Your task to perform on an android device: Is it going to rain today? Image 0: 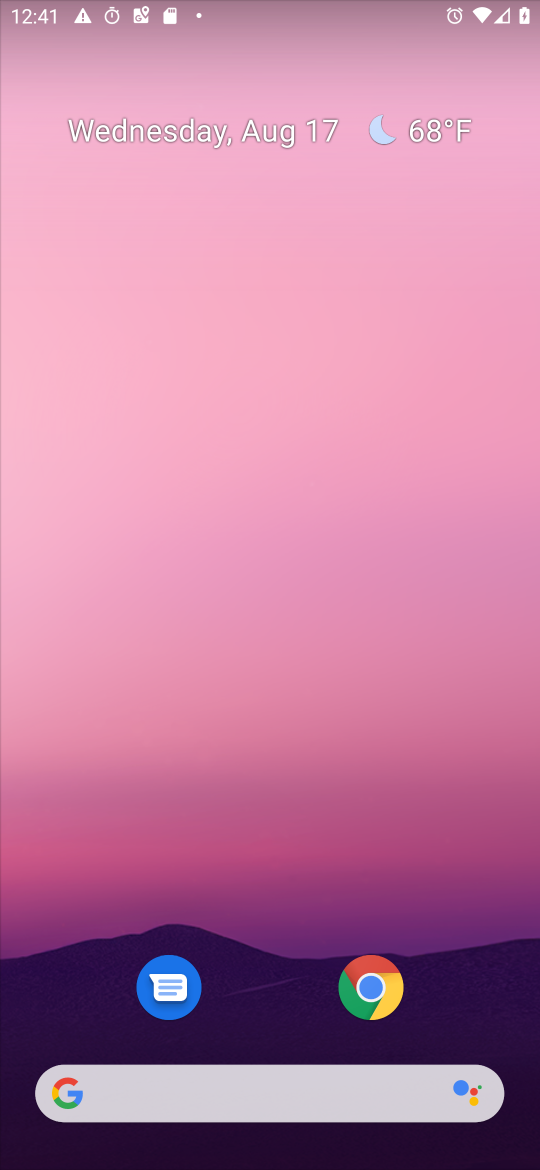
Step 0: click (161, 1094)
Your task to perform on an android device: Is it going to rain today? Image 1: 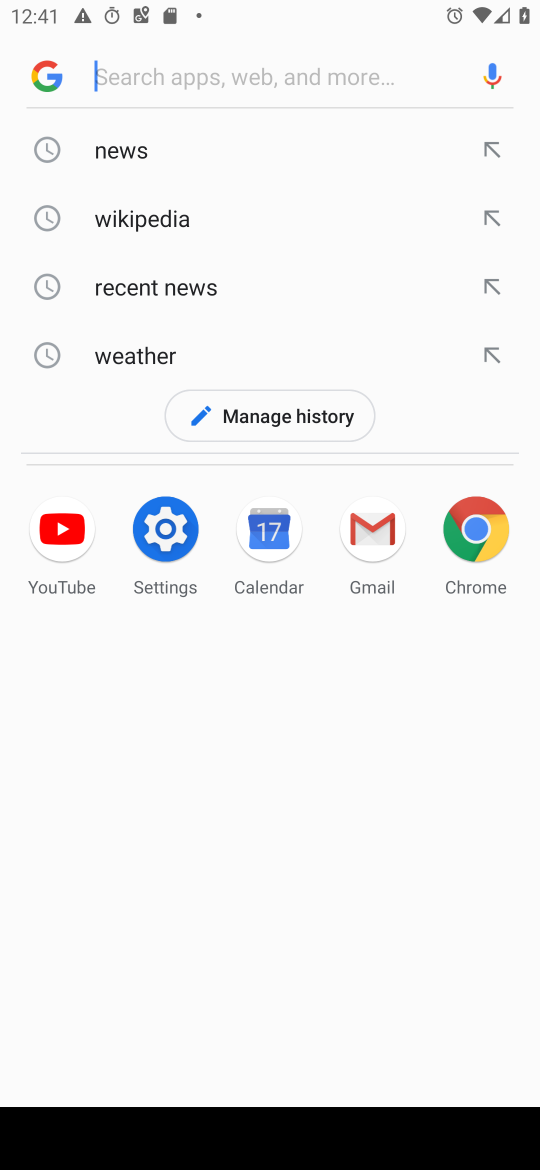
Step 1: type "Is it going to rain today?"
Your task to perform on an android device: Is it going to rain today? Image 2: 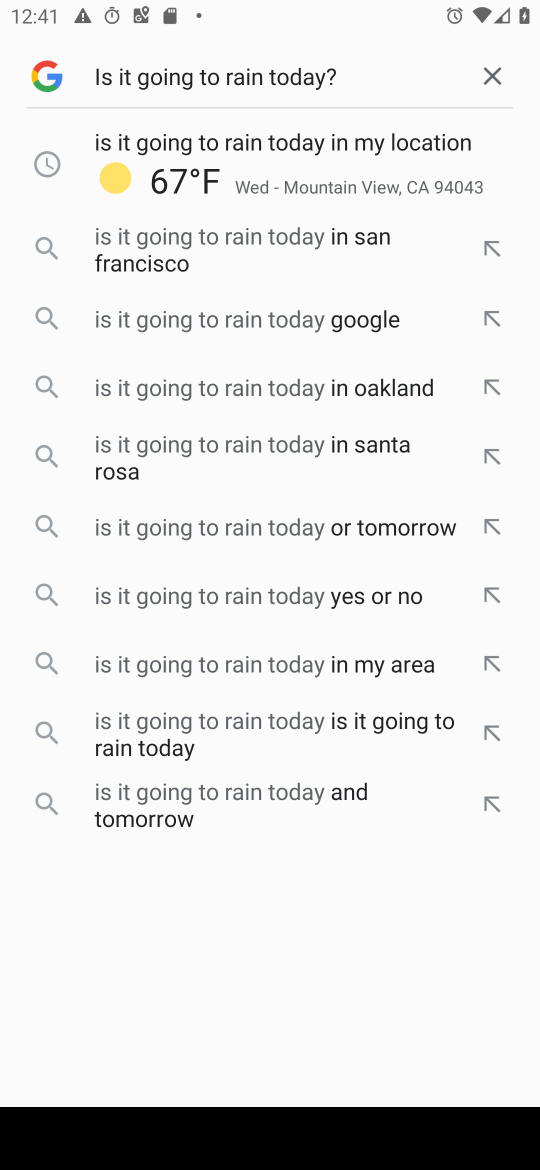
Step 2: type ""
Your task to perform on an android device: Is it going to rain today? Image 3: 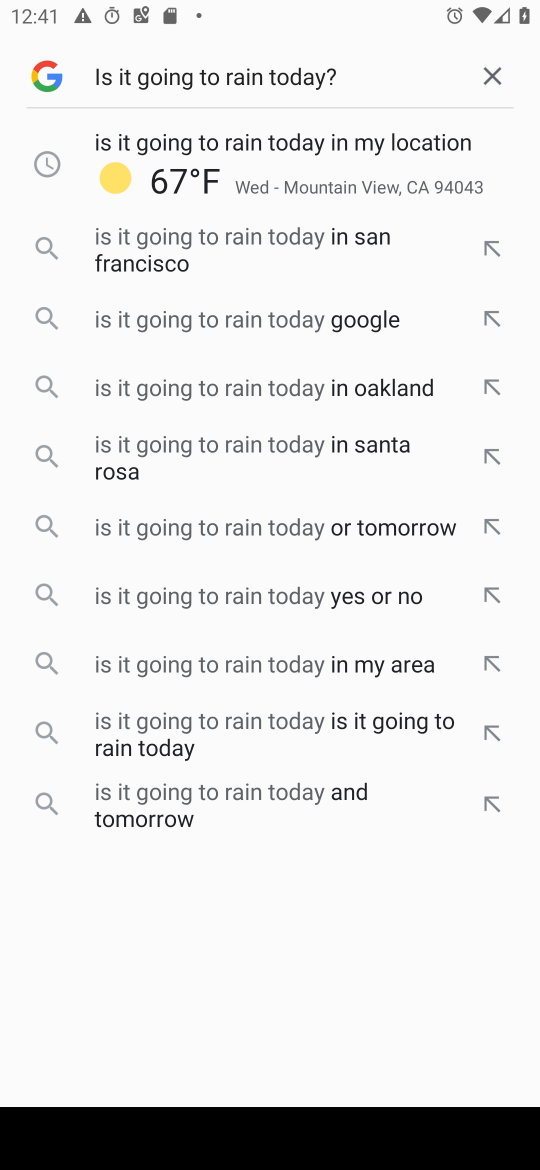
Step 3: task complete